Your task to perform on an android device: When is my next meeting? Image 0: 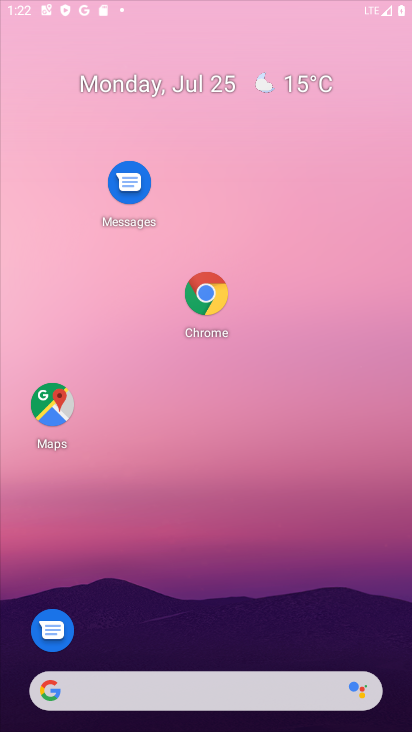
Step 0: click (214, 293)
Your task to perform on an android device: When is my next meeting? Image 1: 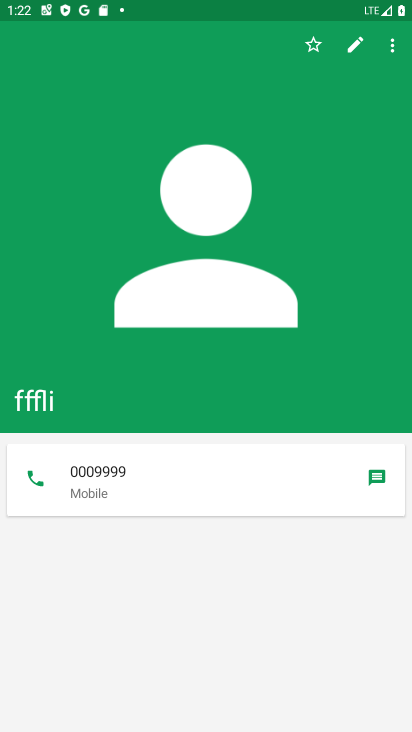
Step 1: press home button
Your task to perform on an android device: When is my next meeting? Image 2: 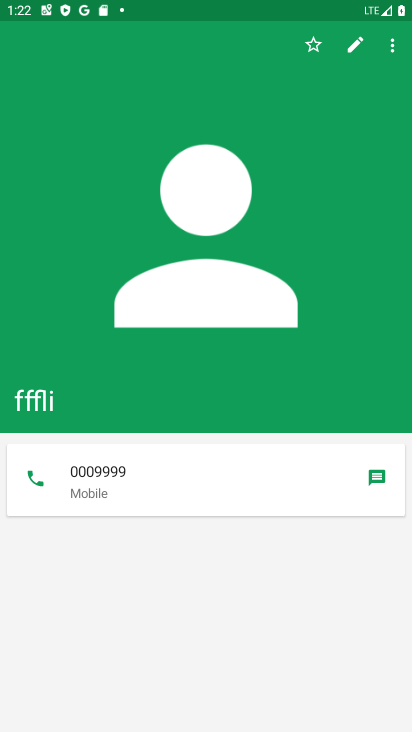
Step 2: drag from (294, 657) to (292, 10)
Your task to perform on an android device: When is my next meeting? Image 3: 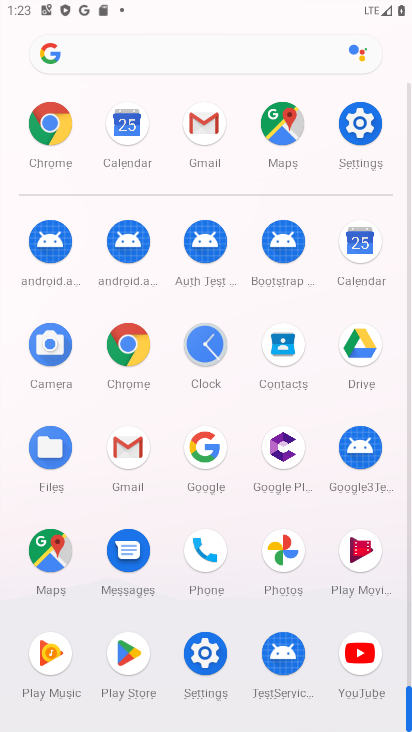
Step 3: click (357, 278)
Your task to perform on an android device: When is my next meeting? Image 4: 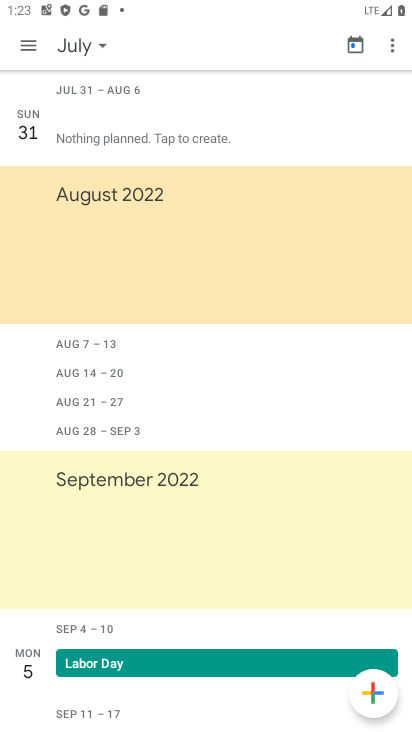
Step 4: task complete